Your task to perform on an android device: change notification settings in the gmail app Image 0: 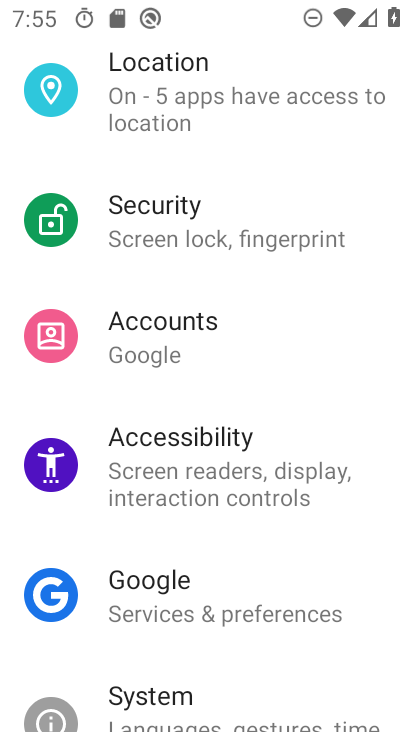
Step 0: press home button
Your task to perform on an android device: change notification settings in the gmail app Image 1: 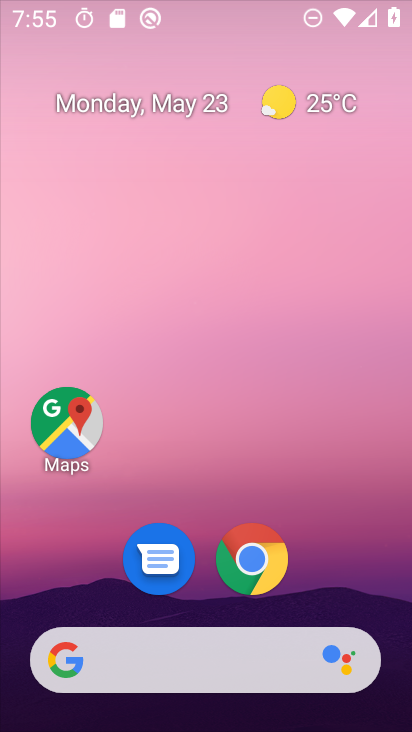
Step 1: drag from (385, 655) to (309, 16)
Your task to perform on an android device: change notification settings in the gmail app Image 2: 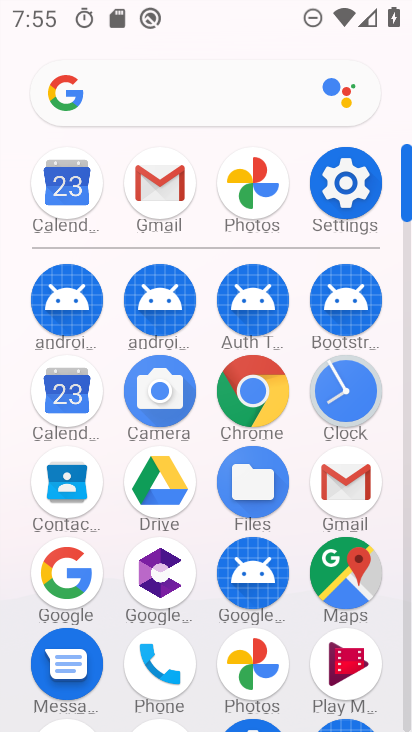
Step 2: click (336, 496)
Your task to perform on an android device: change notification settings in the gmail app Image 3: 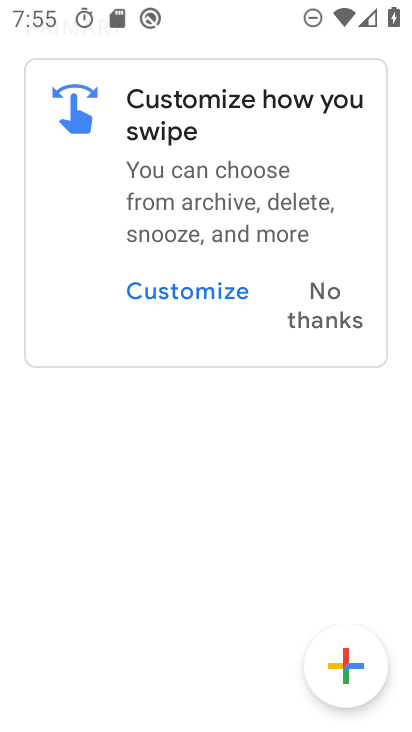
Step 3: drag from (188, 324) to (195, 655)
Your task to perform on an android device: change notification settings in the gmail app Image 4: 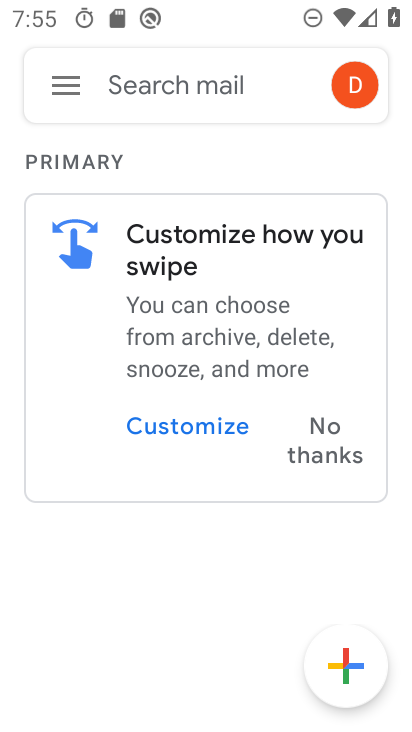
Step 4: click (80, 77)
Your task to perform on an android device: change notification settings in the gmail app Image 5: 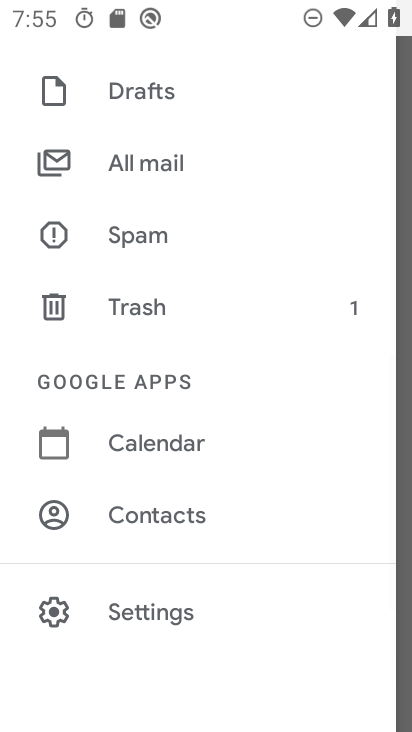
Step 5: click (167, 609)
Your task to perform on an android device: change notification settings in the gmail app Image 6: 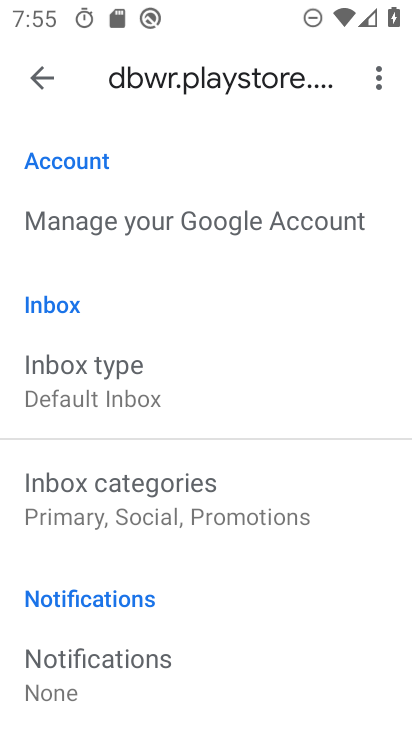
Step 6: click (138, 677)
Your task to perform on an android device: change notification settings in the gmail app Image 7: 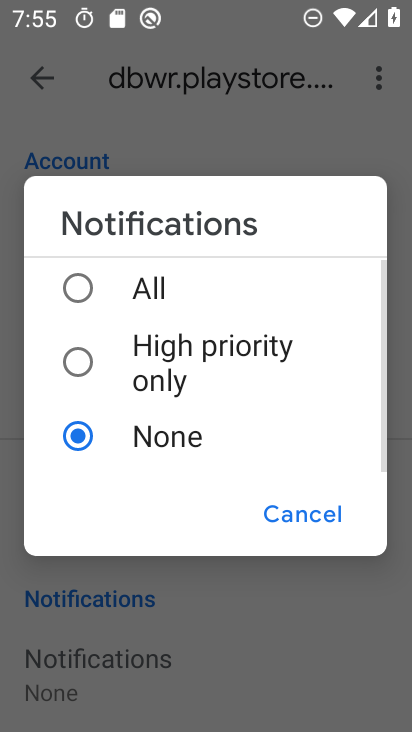
Step 7: click (79, 292)
Your task to perform on an android device: change notification settings in the gmail app Image 8: 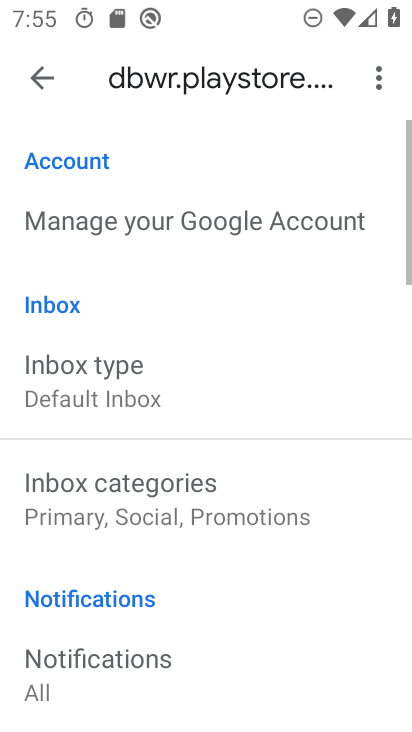
Step 8: task complete